Your task to perform on an android device: Open ESPN.com Image 0: 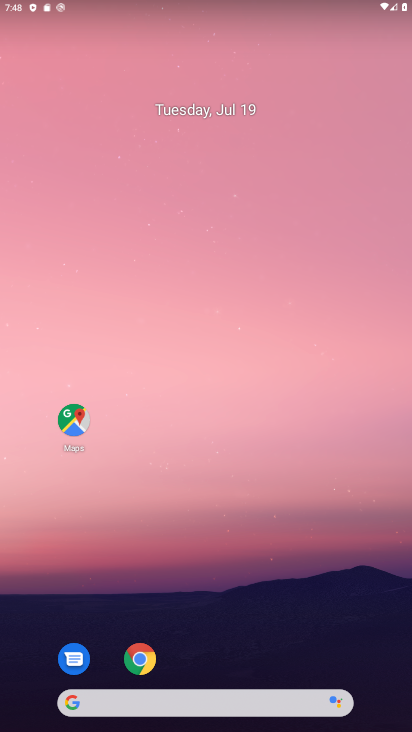
Step 0: click (135, 668)
Your task to perform on an android device: Open ESPN.com Image 1: 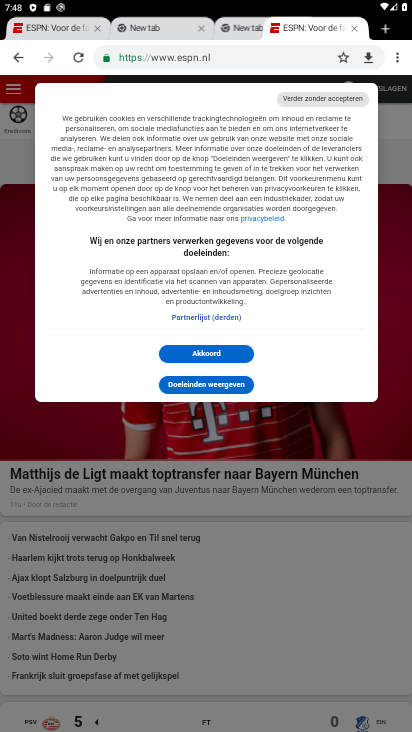
Step 1: task complete